Your task to perform on an android device: toggle wifi Image 0: 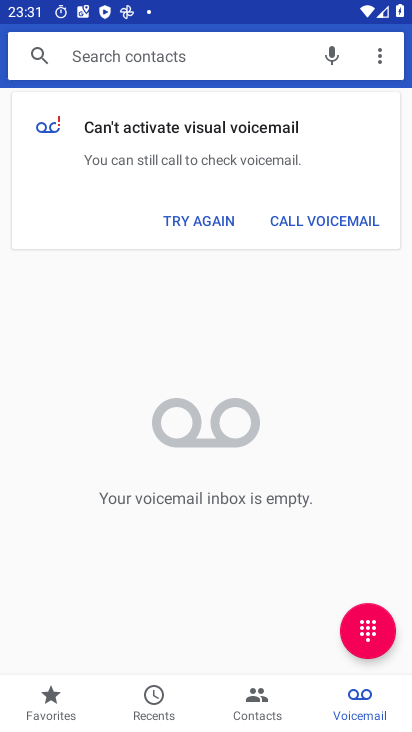
Step 0: press home button
Your task to perform on an android device: toggle wifi Image 1: 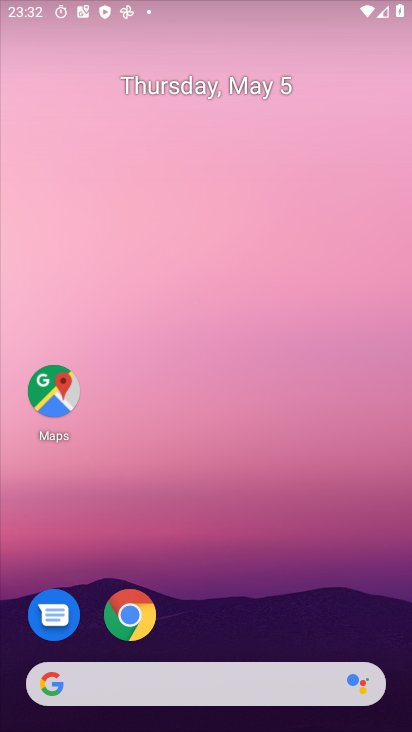
Step 1: drag from (255, 581) to (349, 0)
Your task to perform on an android device: toggle wifi Image 2: 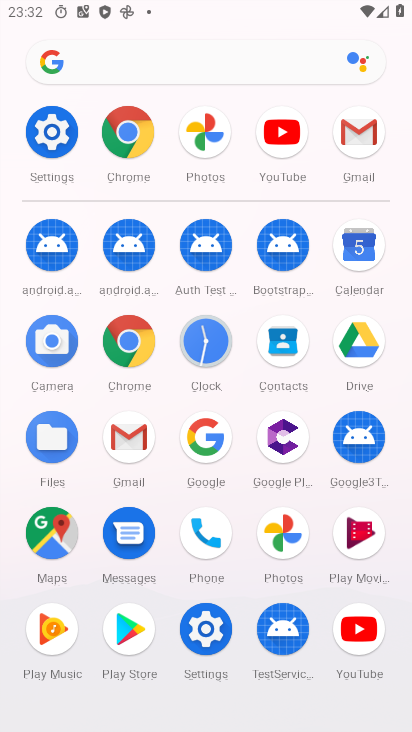
Step 2: click (204, 630)
Your task to perform on an android device: toggle wifi Image 3: 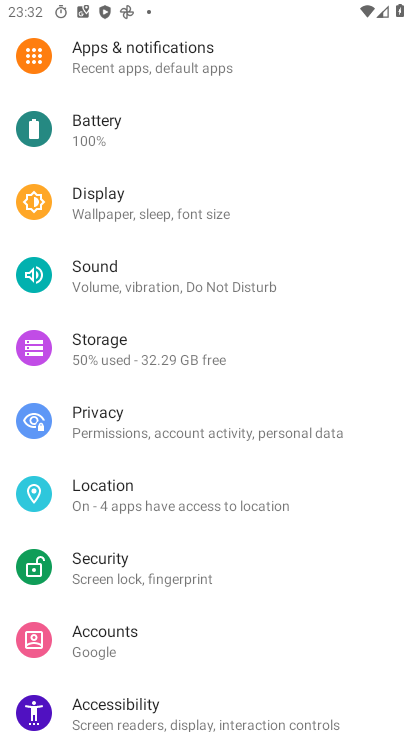
Step 3: drag from (177, 106) to (198, 519)
Your task to perform on an android device: toggle wifi Image 4: 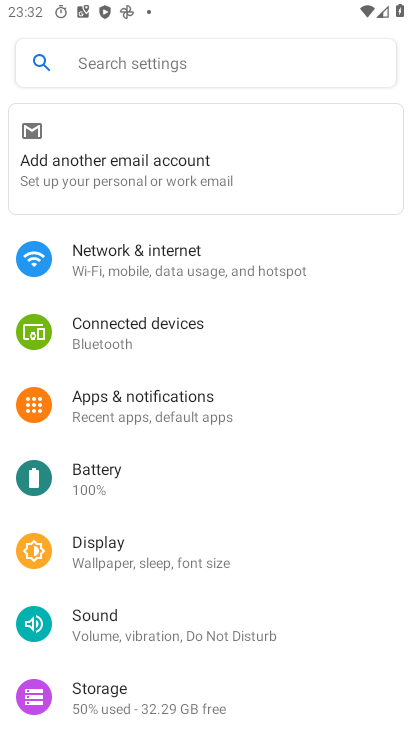
Step 4: click (165, 261)
Your task to perform on an android device: toggle wifi Image 5: 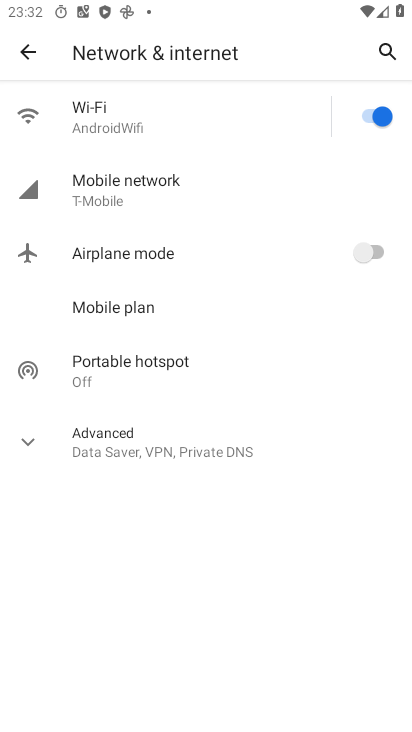
Step 5: click (391, 102)
Your task to perform on an android device: toggle wifi Image 6: 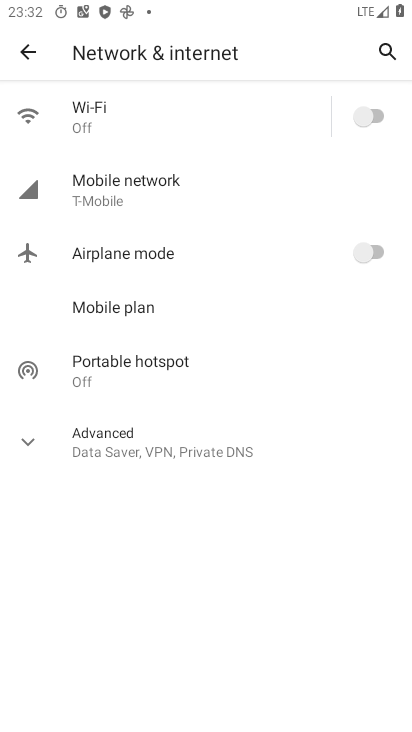
Step 6: task complete